Your task to perform on an android device: Open Youtube and go to "Your channel" Image 0: 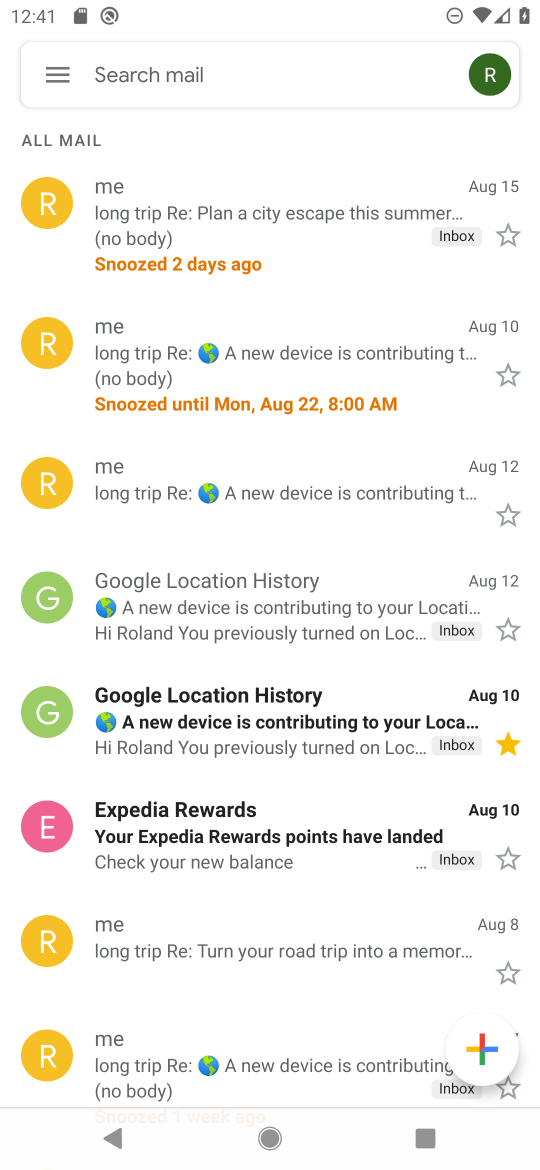
Step 0: press home button
Your task to perform on an android device: Open Youtube and go to "Your channel" Image 1: 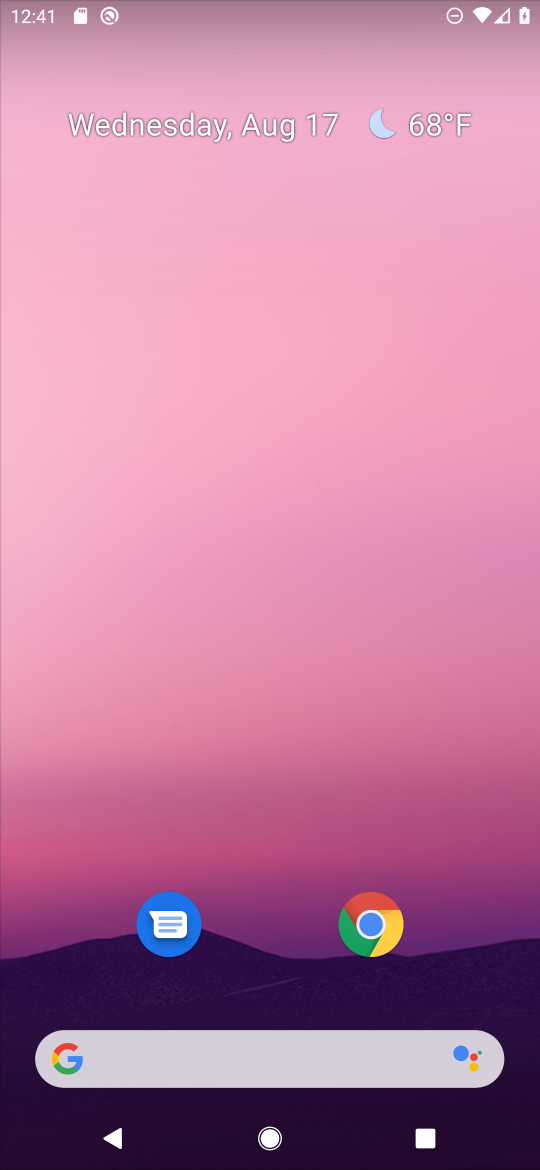
Step 1: drag from (240, 1003) to (533, 11)
Your task to perform on an android device: Open Youtube and go to "Your channel" Image 2: 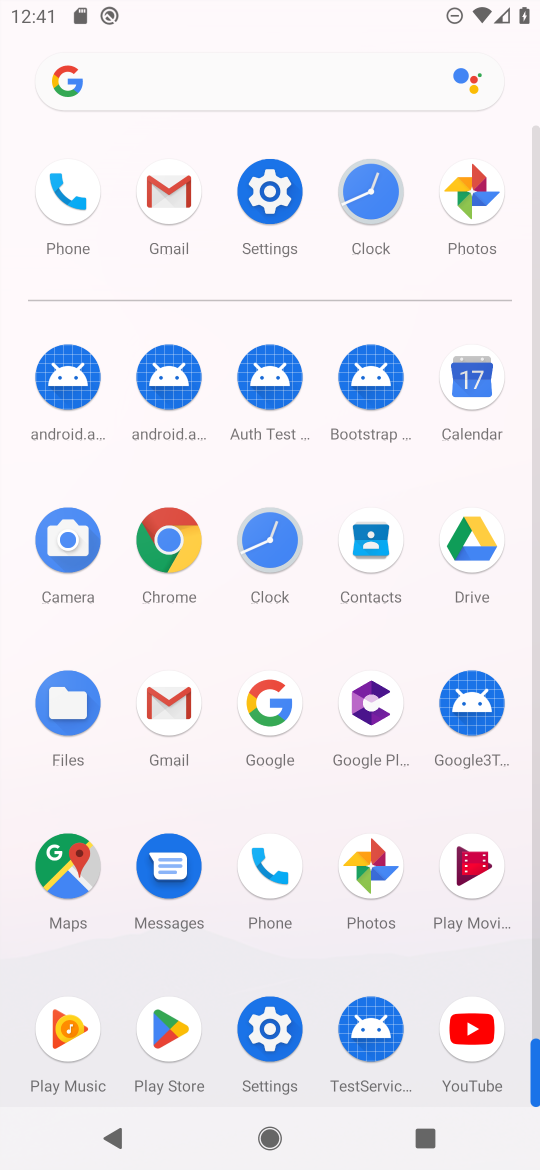
Step 2: click (464, 1028)
Your task to perform on an android device: Open Youtube and go to "Your channel" Image 3: 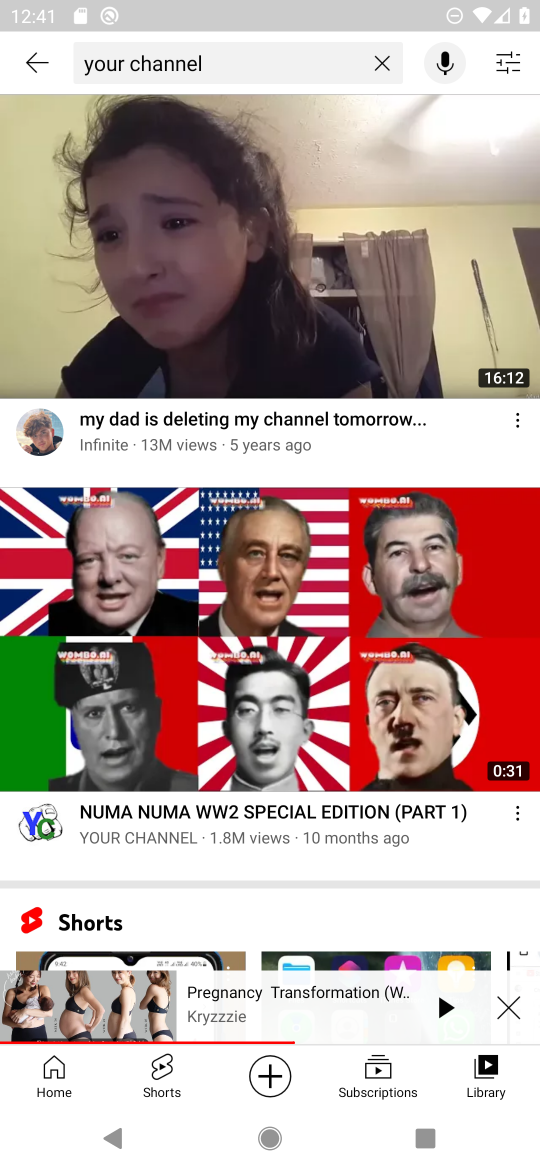
Step 3: task complete